Your task to perform on an android device: toggle pop-ups in chrome Image 0: 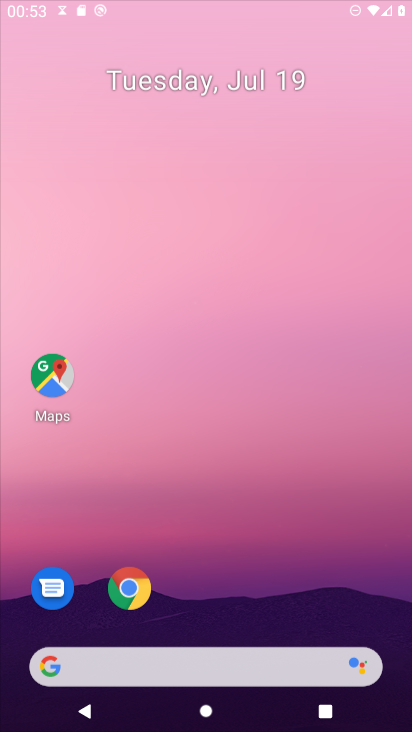
Step 0: press home button
Your task to perform on an android device: toggle pop-ups in chrome Image 1: 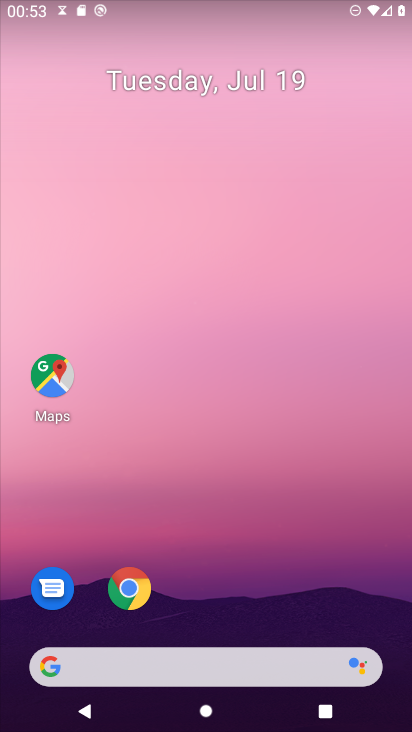
Step 1: click (145, 586)
Your task to perform on an android device: toggle pop-ups in chrome Image 2: 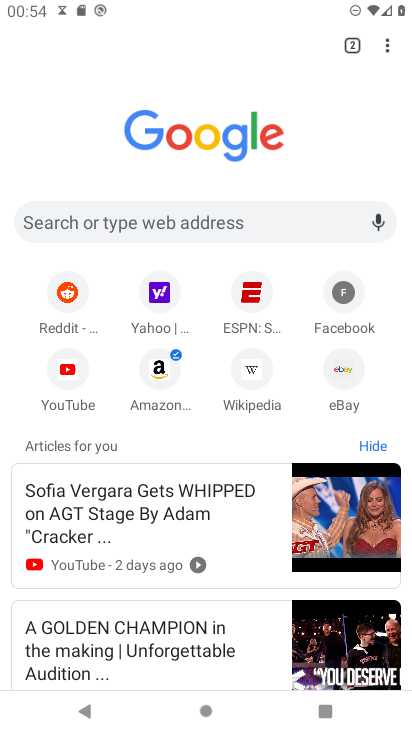
Step 2: click (381, 42)
Your task to perform on an android device: toggle pop-ups in chrome Image 3: 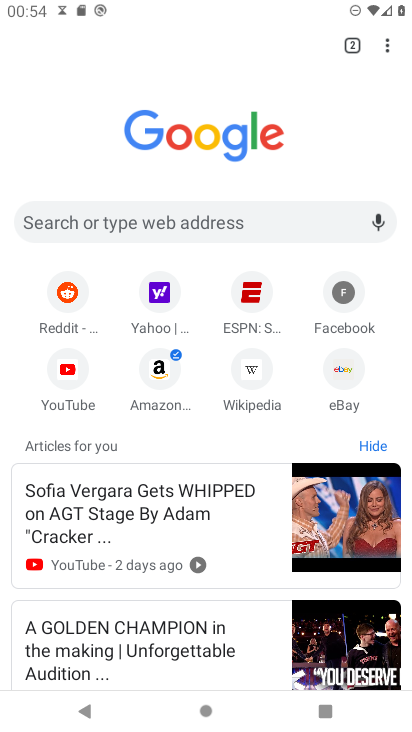
Step 3: drag from (373, 43) to (227, 389)
Your task to perform on an android device: toggle pop-ups in chrome Image 4: 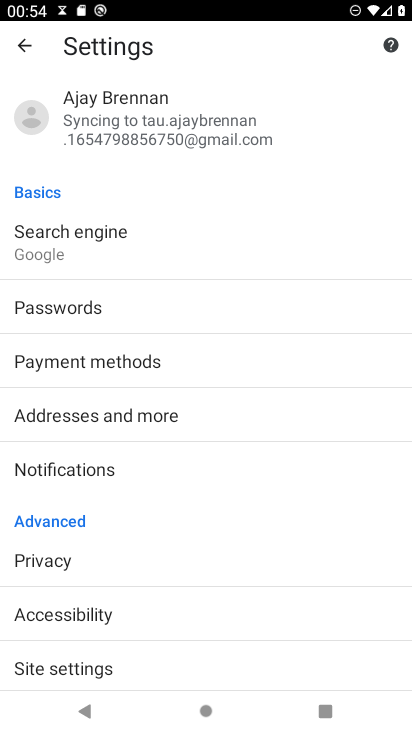
Step 4: click (91, 663)
Your task to perform on an android device: toggle pop-ups in chrome Image 5: 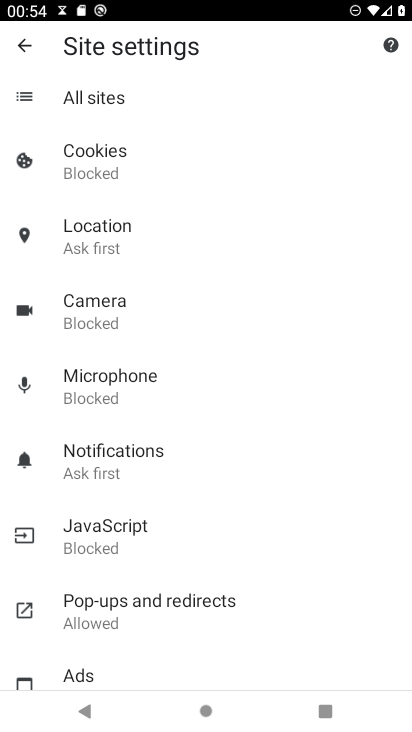
Step 5: click (114, 607)
Your task to perform on an android device: toggle pop-ups in chrome Image 6: 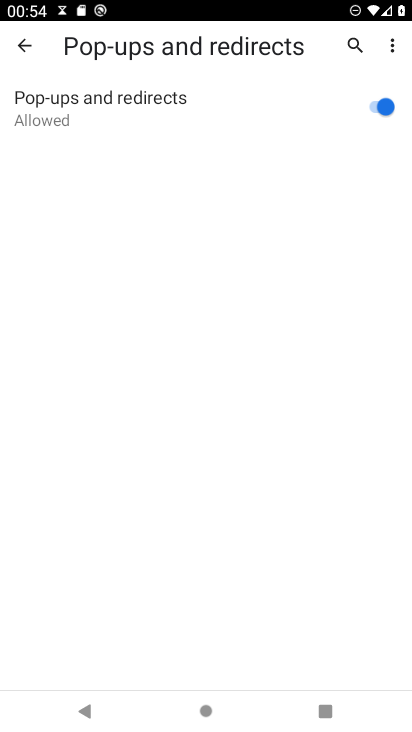
Step 6: click (385, 110)
Your task to perform on an android device: toggle pop-ups in chrome Image 7: 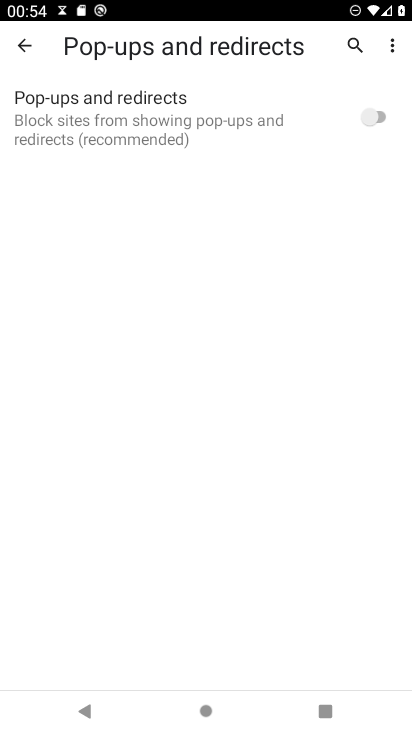
Step 7: task complete